Your task to perform on an android device: check battery use Image 0: 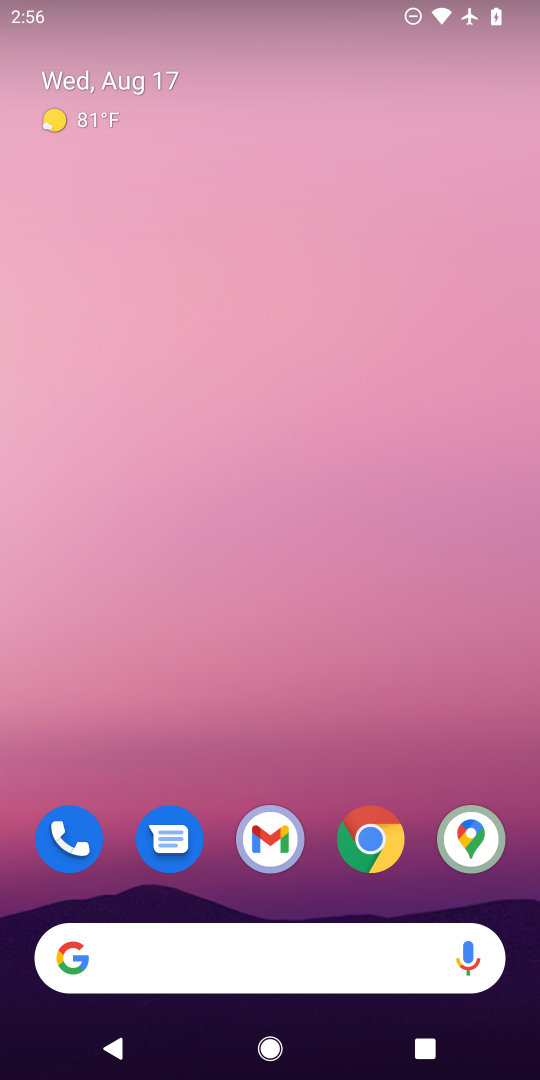
Step 0: drag from (316, 872) to (248, 30)
Your task to perform on an android device: check battery use Image 1: 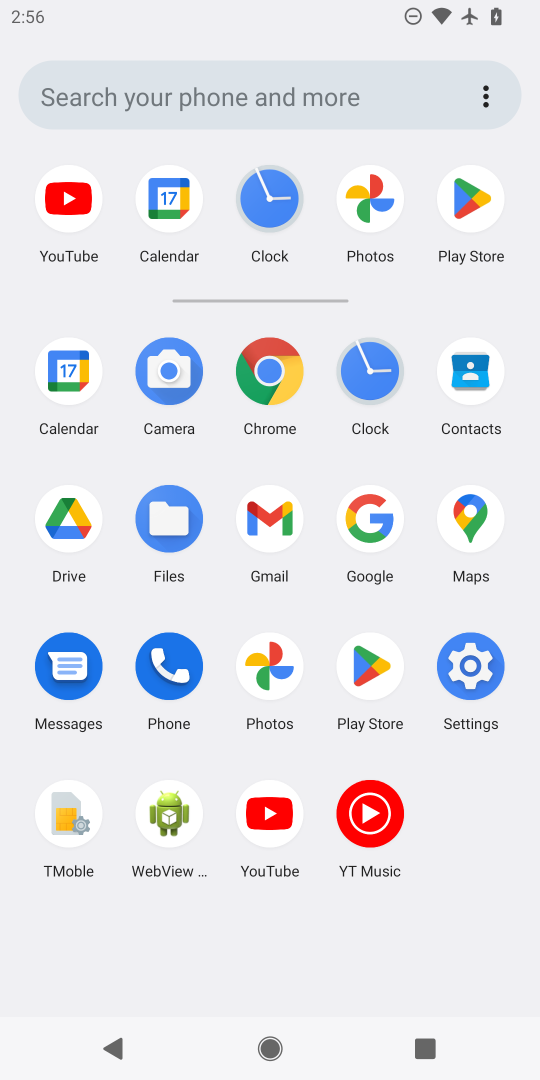
Step 1: click (464, 664)
Your task to perform on an android device: check battery use Image 2: 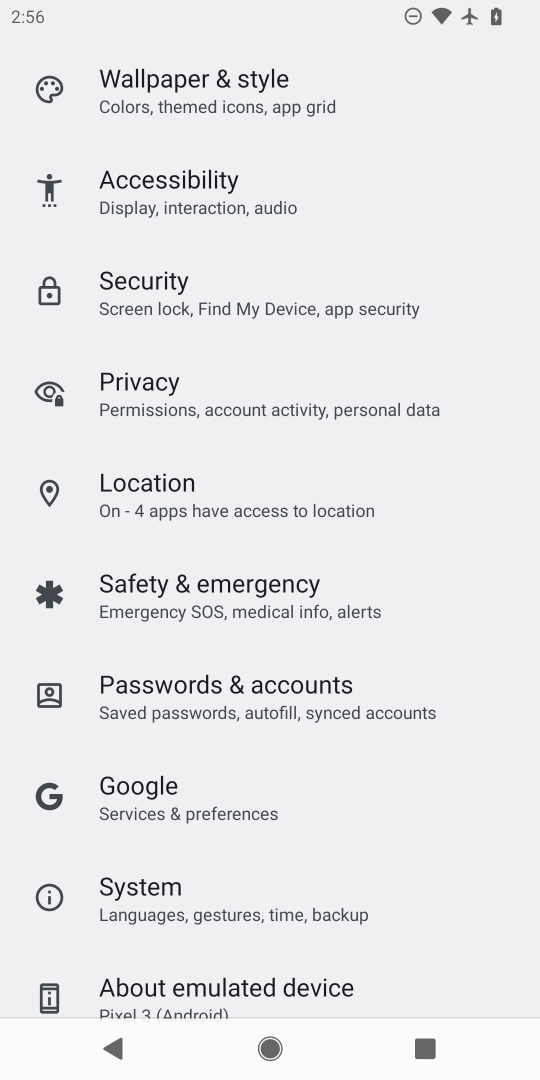
Step 2: drag from (196, 255) to (208, 665)
Your task to perform on an android device: check battery use Image 3: 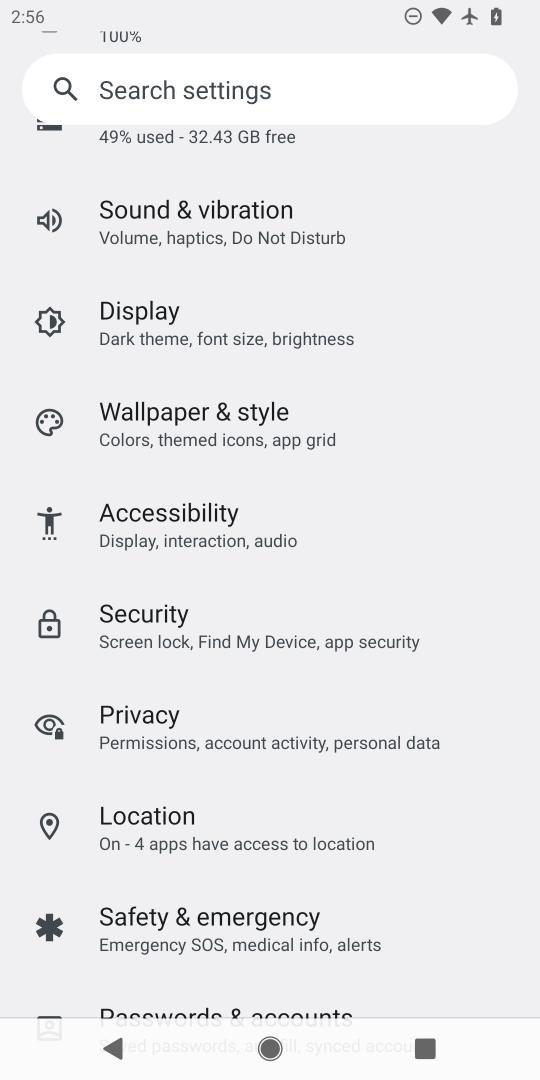
Step 3: drag from (222, 206) to (238, 713)
Your task to perform on an android device: check battery use Image 4: 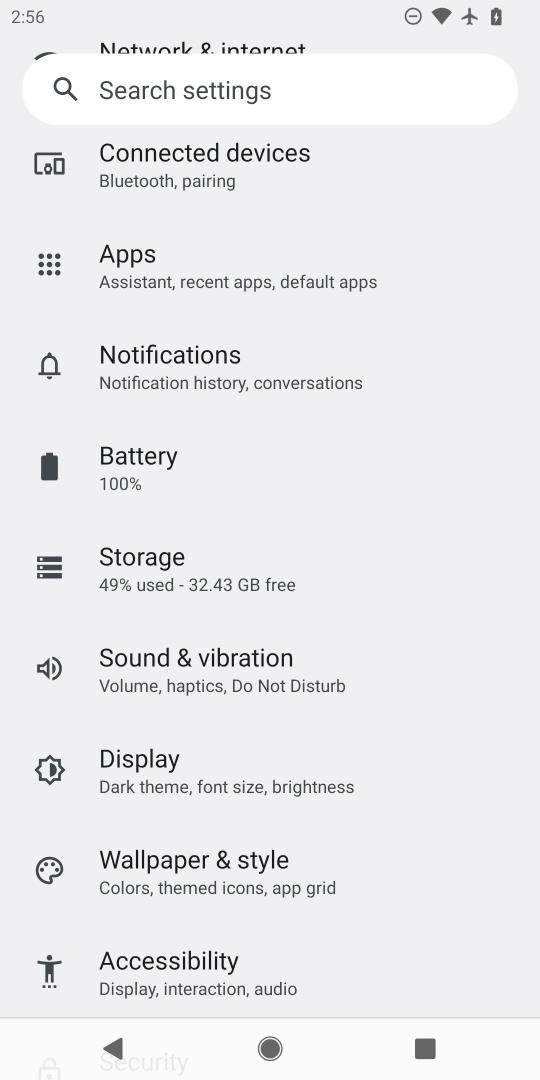
Step 4: click (118, 458)
Your task to perform on an android device: check battery use Image 5: 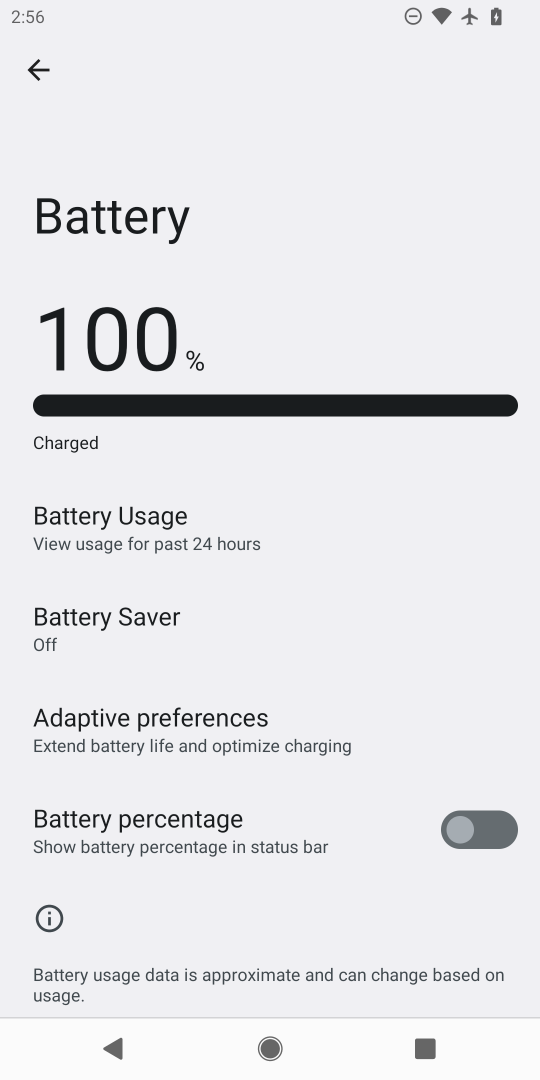
Step 5: click (112, 517)
Your task to perform on an android device: check battery use Image 6: 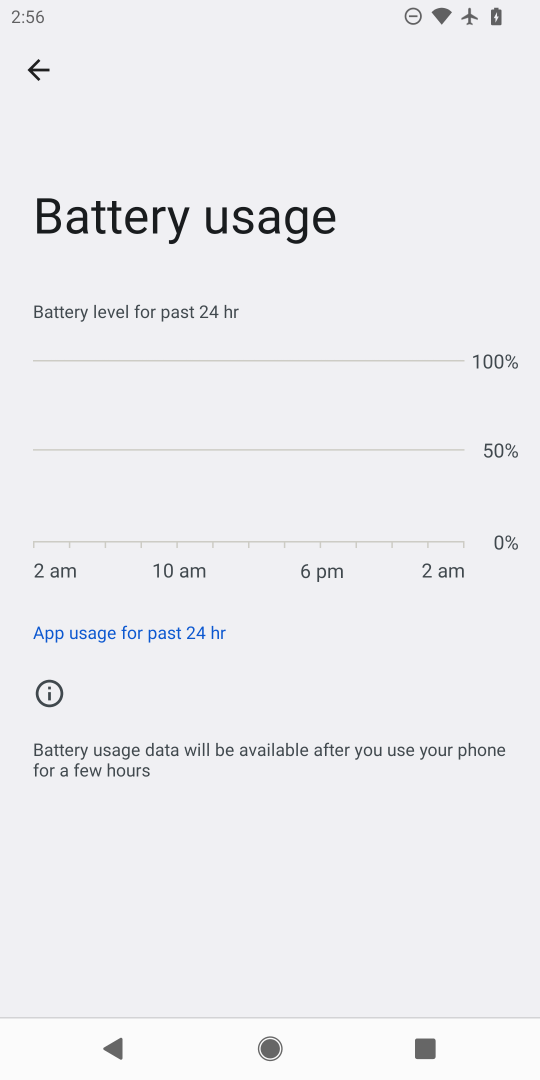
Step 6: task complete